Your task to perform on an android device: open a bookmark in the chrome app Image 0: 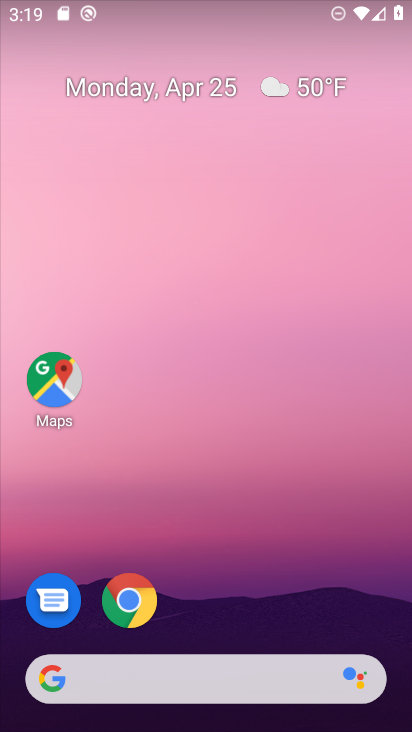
Step 0: drag from (217, 623) to (337, 4)
Your task to perform on an android device: open a bookmark in the chrome app Image 1: 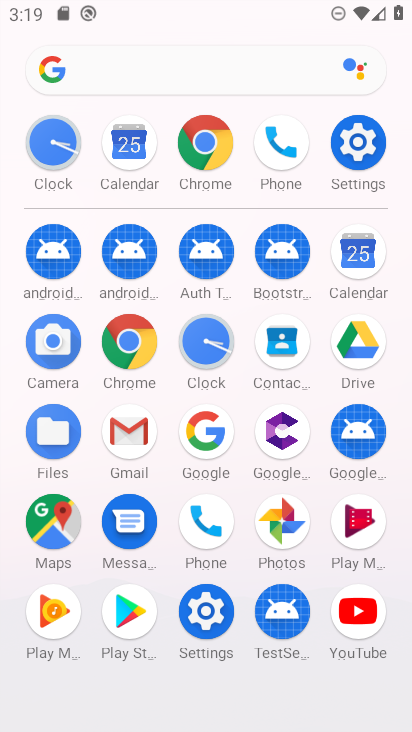
Step 1: click (201, 153)
Your task to perform on an android device: open a bookmark in the chrome app Image 2: 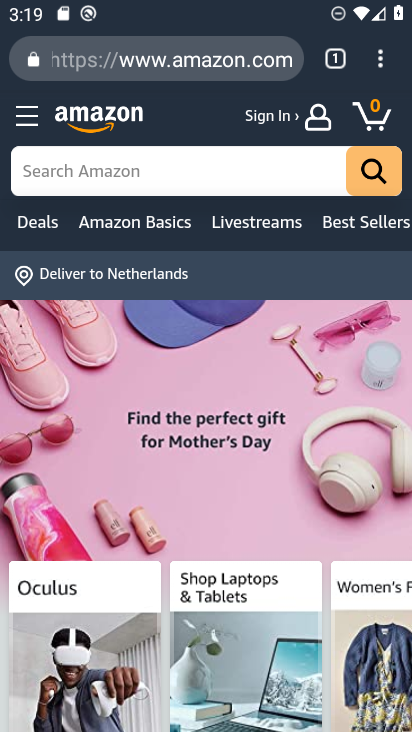
Step 2: task complete